Your task to perform on an android device: open app "Calculator" (install if not already installed) Image 0: 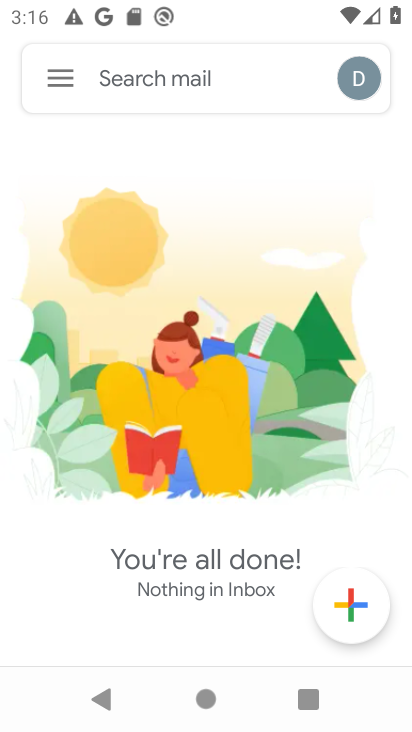
Step 0: press home button
Your task to perform on an android device: open app "Calculator" (install if not already installed) Image 1: 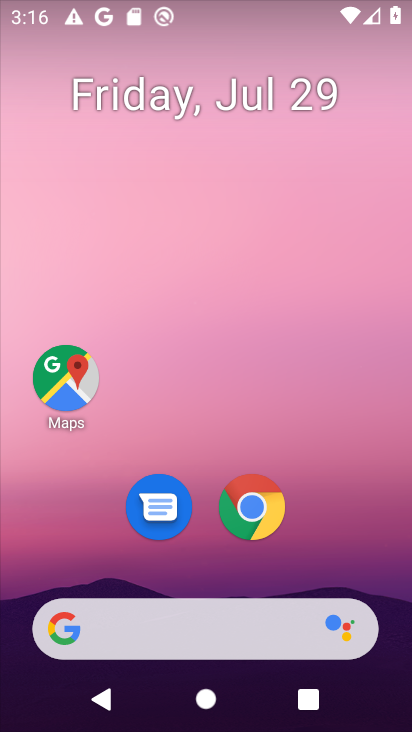
Step 1: click (198, 616)
Your task to perform on an android device: open app "Calculator" (install if not already installed) Image 2: 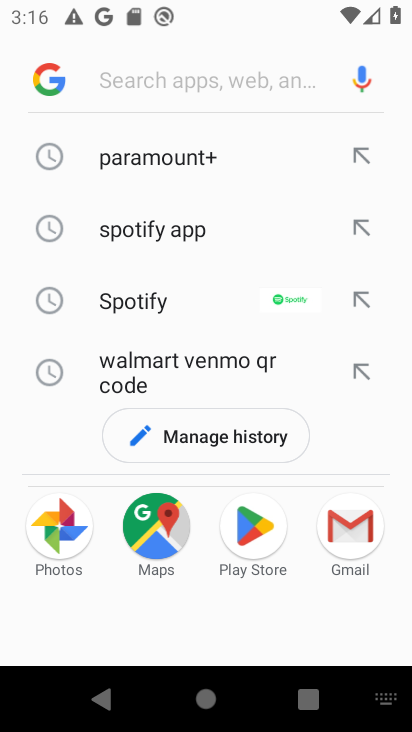
Step 2: type "calculator"
Your task to perform on an android device: open app "Calculator" (install if not already installed) Image 3: 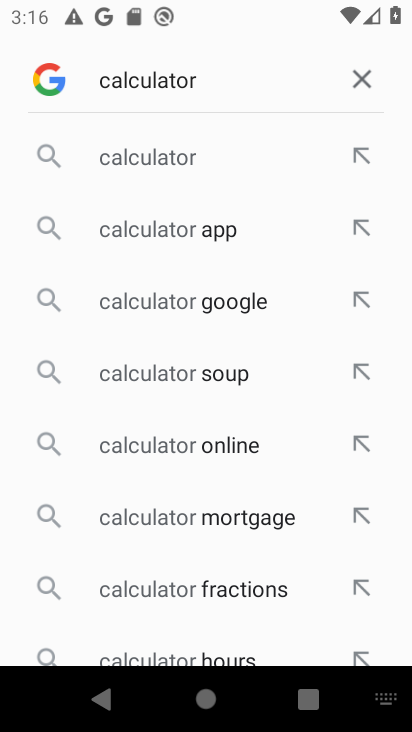
Step 3: click (206, 153)
Your task to perform on an android device: open app "Calculator" (install if not already installed) Image 4: 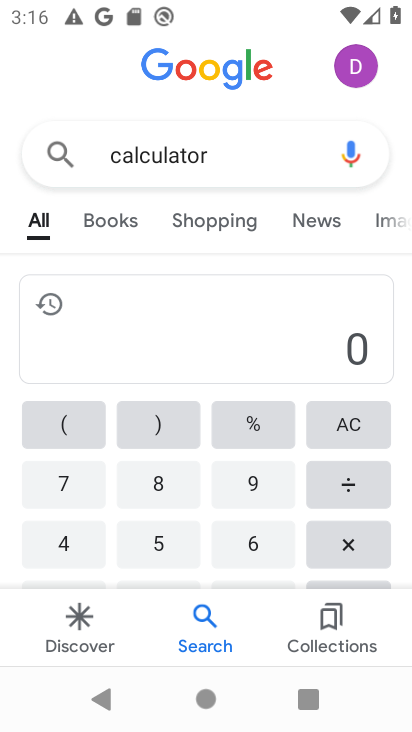
Step 4: task complete